Your task to perform on an android device: toggle priority inbox in the gmail app Image 0: 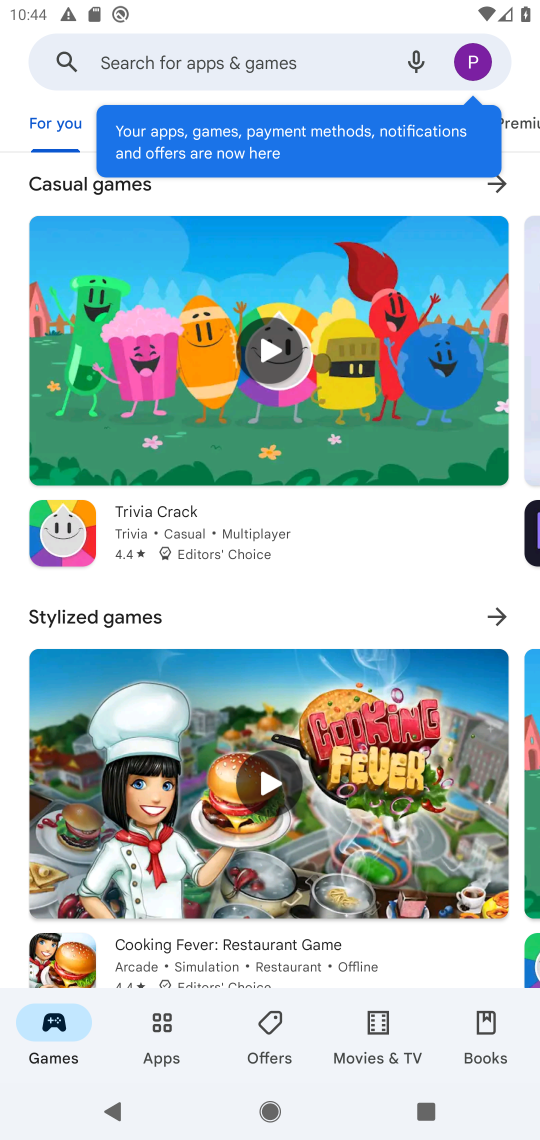
Step 0: press home button
Your task to perform on an android device: toggle priority inbox in the gmail app Image 1: 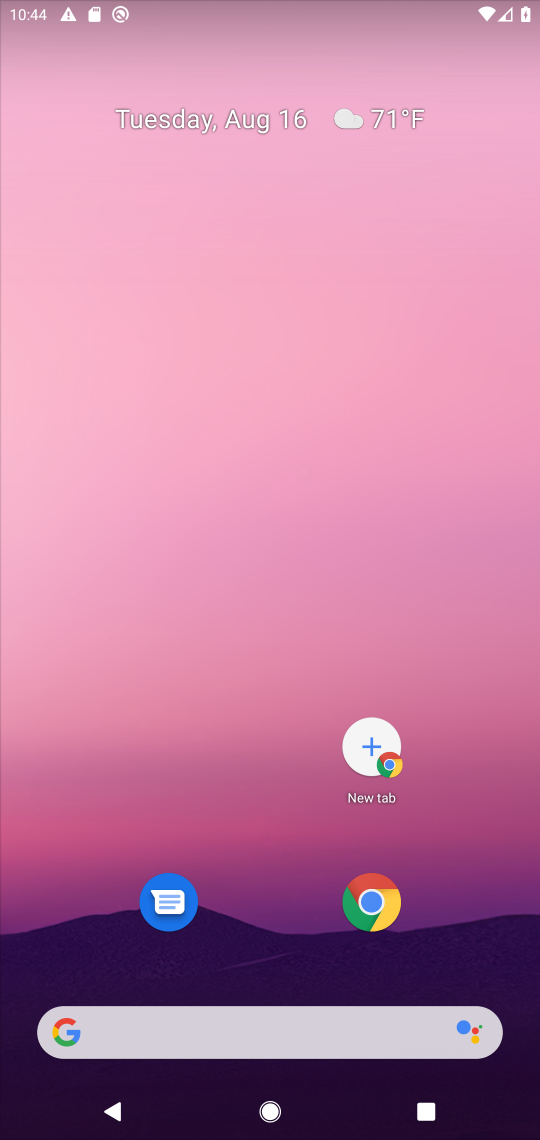
Step 1: drag from (178, 866) to (212, 244)
Your task to perform on an android device: toggle priority inbox in the gmail app Image 2: 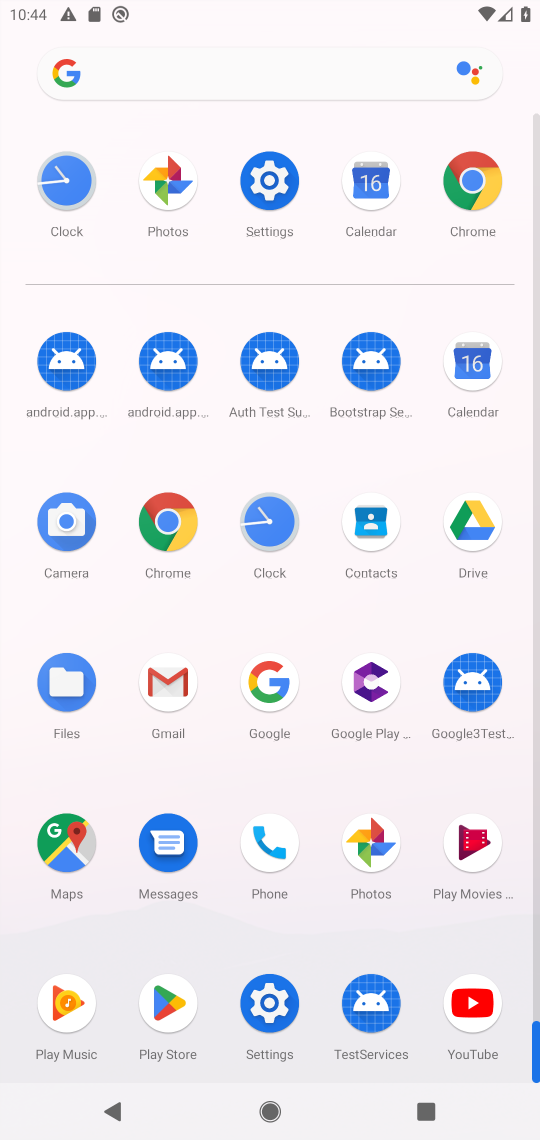
Step 2: click (160, 691)
Your task to perform on an android device: toggle priority inbox in the gmail app Image 3: 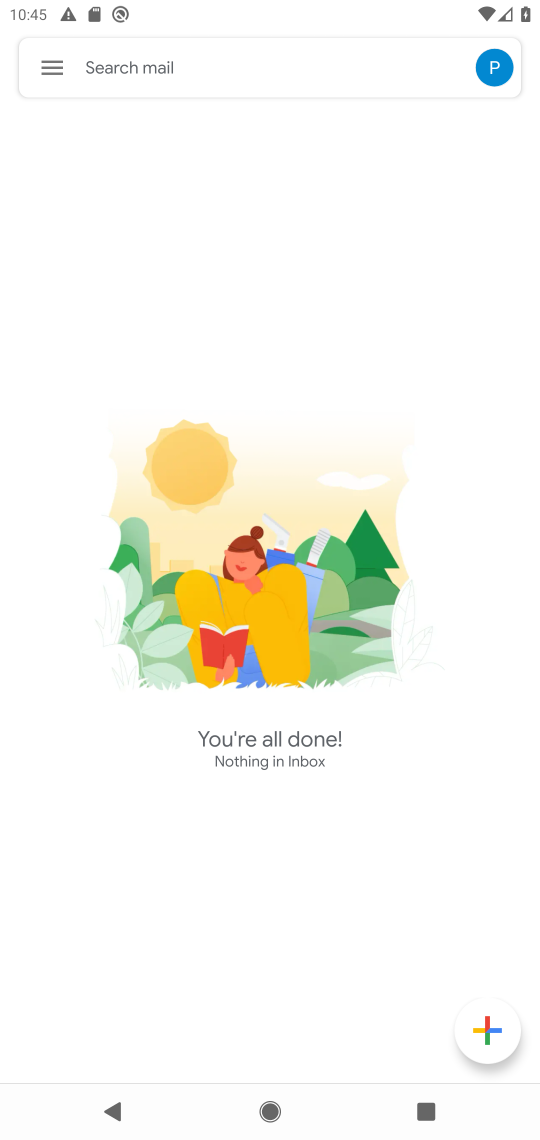
Step 3: click (42, 81)
Your task to perform on an android device: toggle priority inbox in the gmail app Image 4: 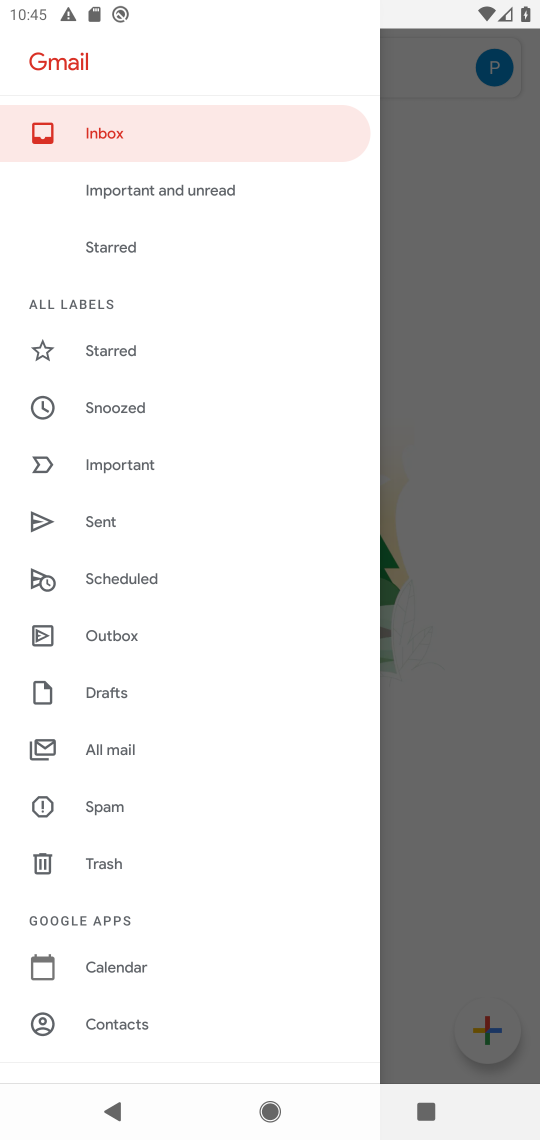
Step 4: drag from (118, 1021) to (115, 449)
Your task to perform on an android device: toggle priority inbox in the gmail app Image 5: 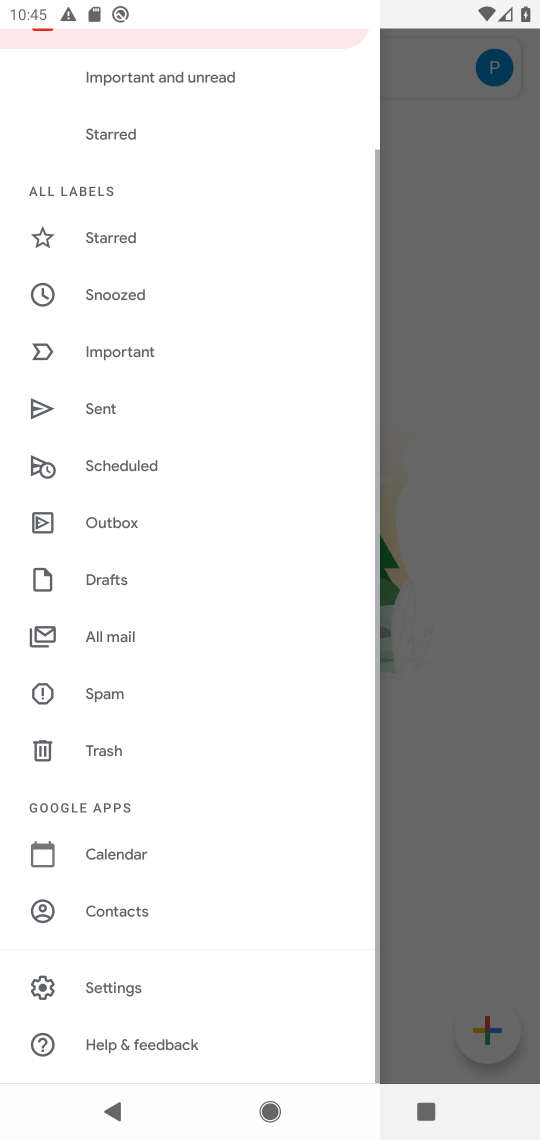
Step 5: click (92, 987)
Your task to perform on an android device: toggle priority inbox in the gmail app Image 6: 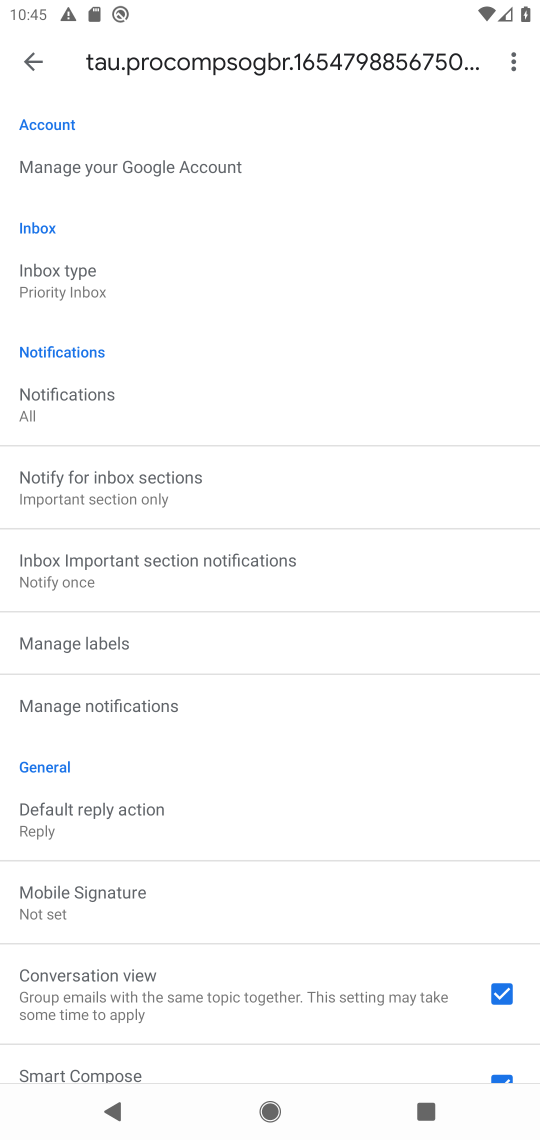
Step 6: click (33, 250)
Your task to perform on an android device: toggle priority inbox in the gmail app Image 7: 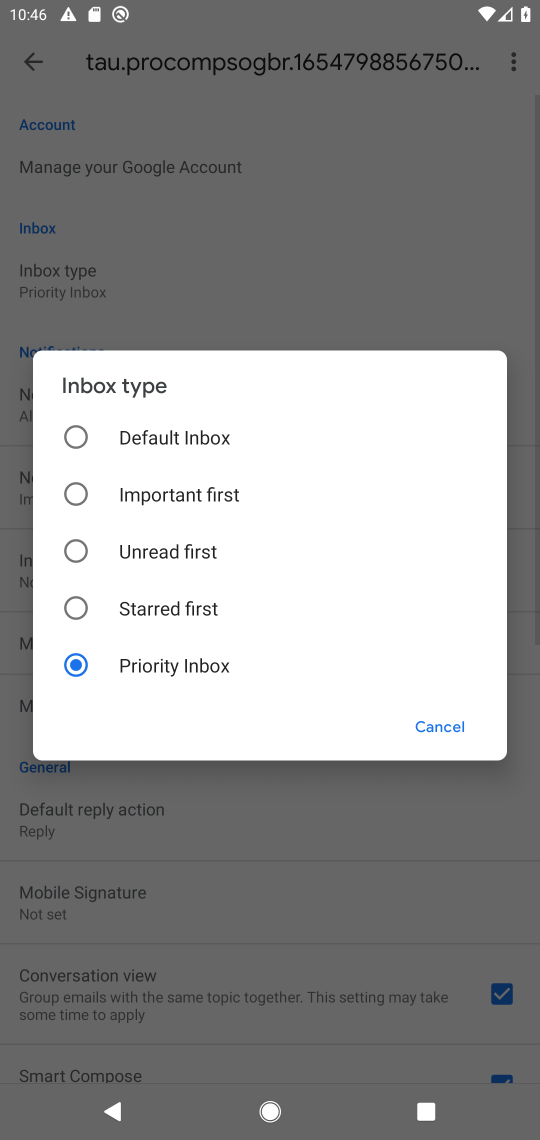
Step 7: click (191, 492)
Your task to perform on an android device: toggle priority inbox in the gmail app Image 8: 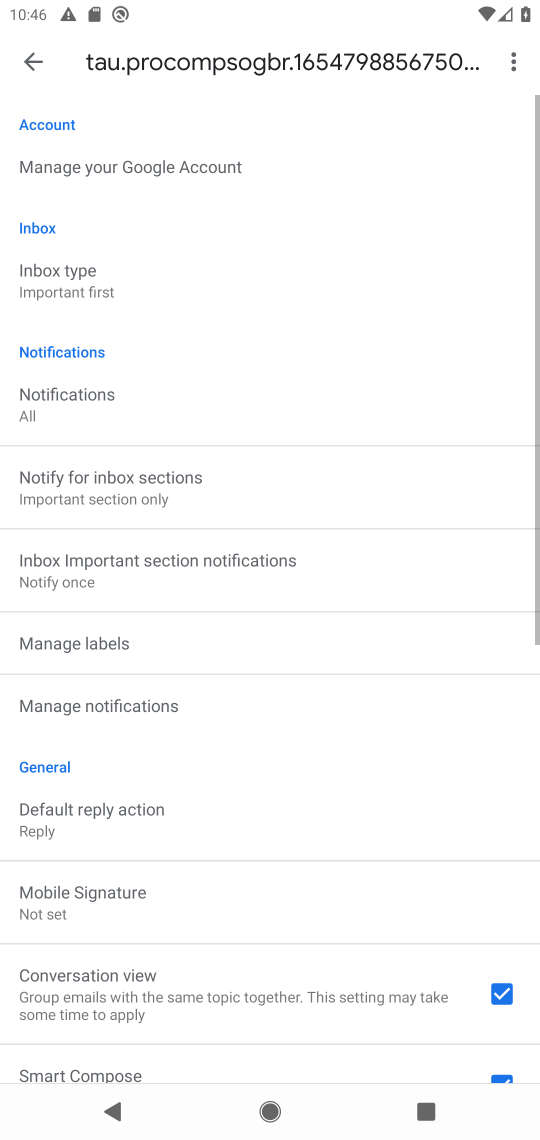
Step 8: task complete